Your task to perform on an android device: turn notification dots off Image 0: 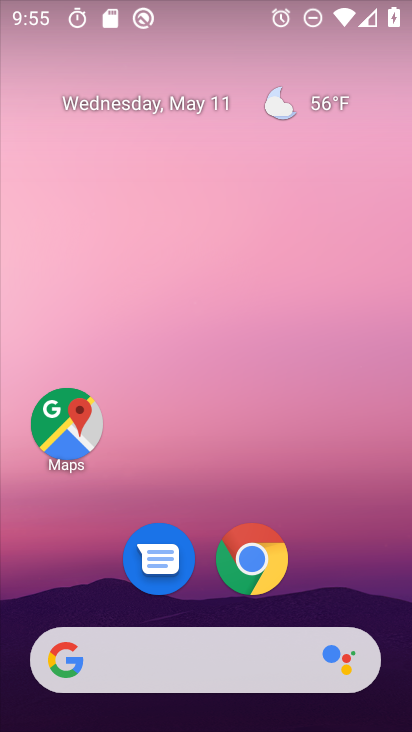
Step 0: drag from (245, 446) to (299, 131)
Your task to perform on an android device: turn notification dots off Image 1: 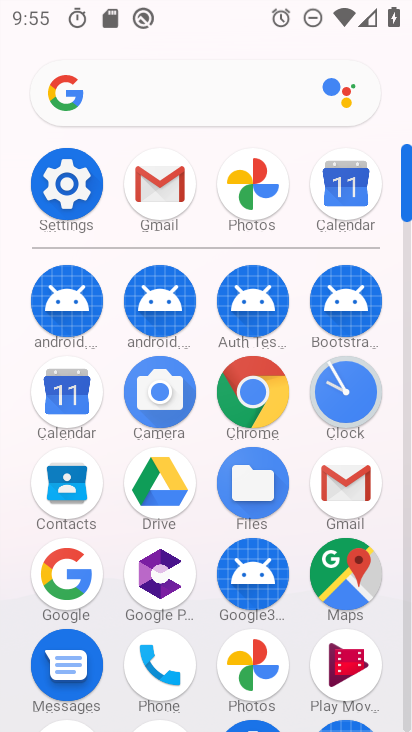
Step 1: click (63, 198)
Your task to perform on an android device: turn notification dots off Image 2: 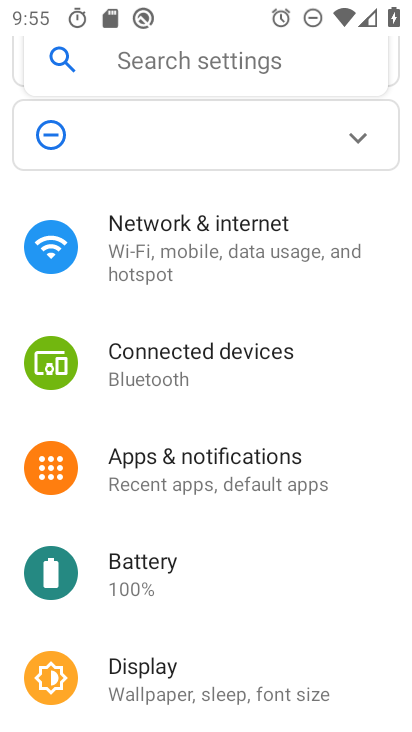
Step 2: click (193, 484)
Your task to perform on an android device: turn notification dots off Image 3: 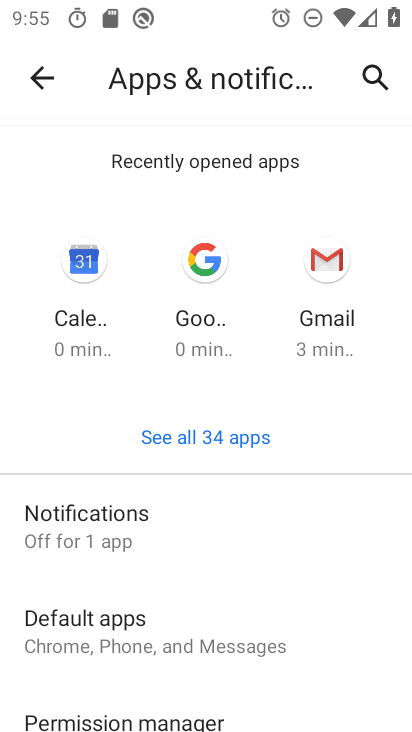
Step 3: task complete